Your task to perform on an android device: Open CNN.com Image 0: 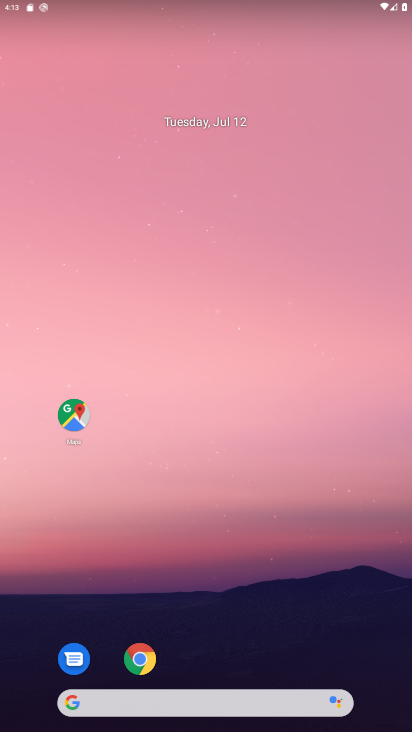
Step 0: click (113, 691)
Your task to perform on an android device: Open CNN.com Image 1: 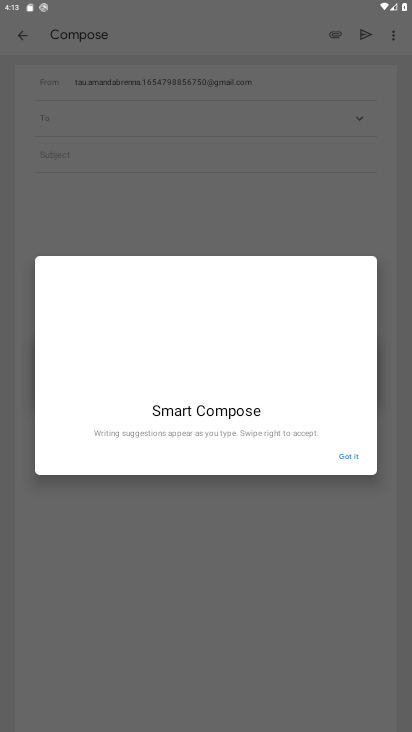
Step 1: click (346, 459)
Your task to perform on an android device: Open CNN.com Image 2: 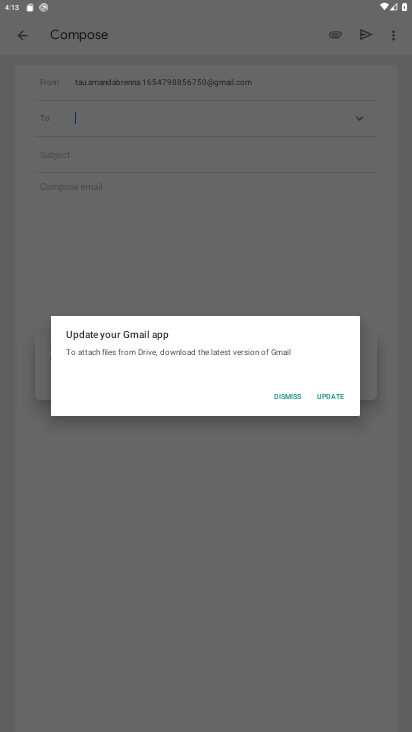
Step 2: press home button
Your task to perform on an android device: Open CNN.com Image 3: 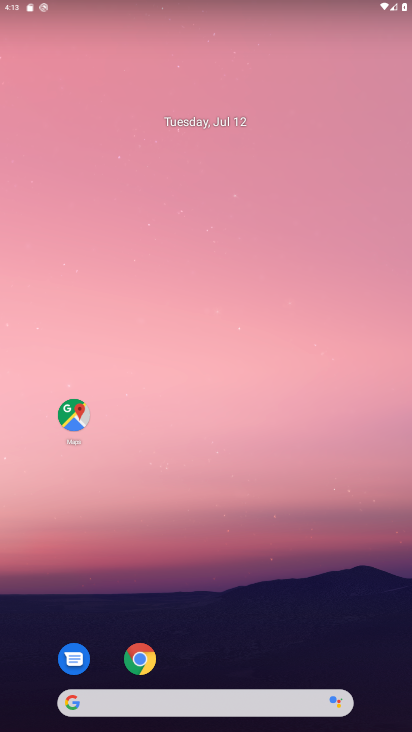
Step 3: click (137, 650)
Your task to perform on an android device: Open CNN.com Image 4: 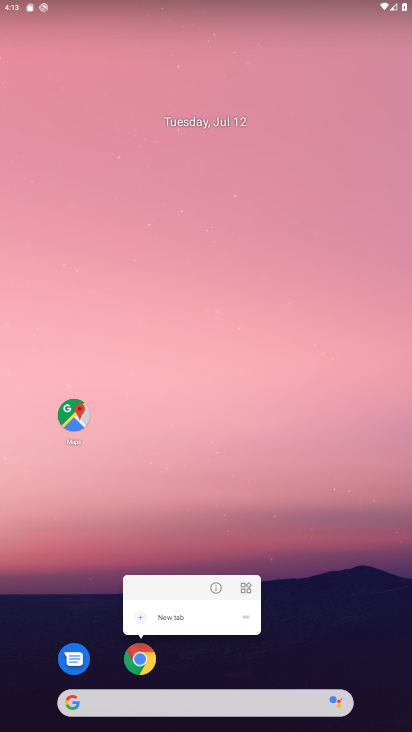
Step 4: click (137, 657)
Your task to perform on an android device: Open CNN.com Image 5: 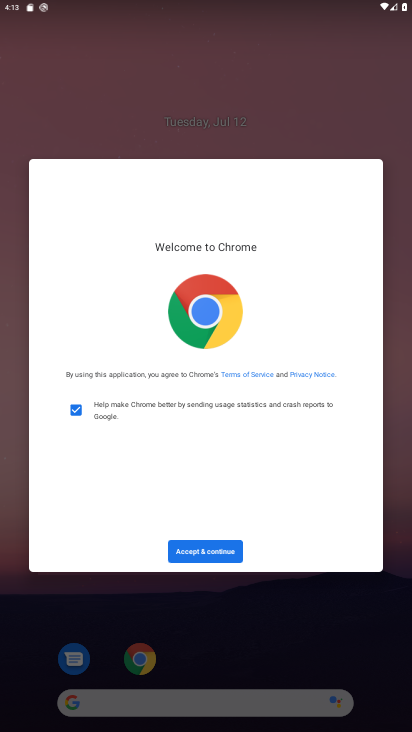
Step 5: click (201, 547)
Your task to perform on an android device: Open CNN.com Image 6: 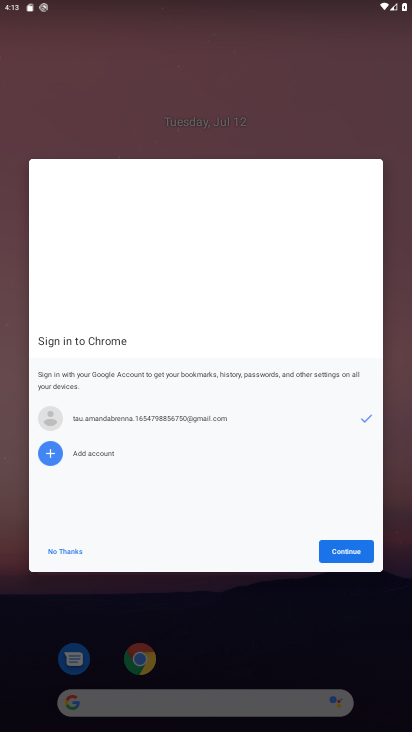
Step 6: click (368, 543)
Your task to perform on an android device: Open CNN.com Image 7: 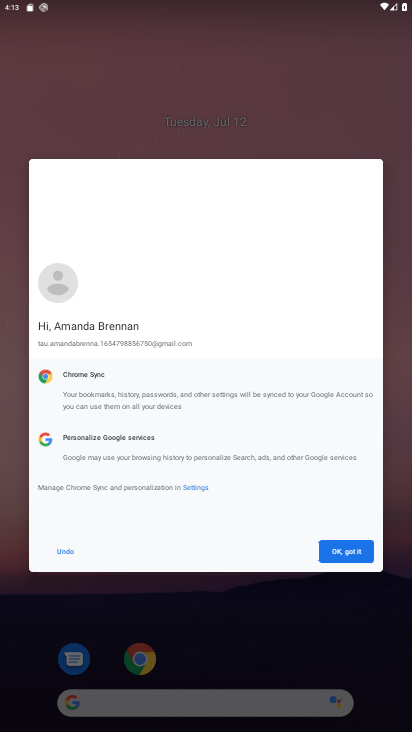
Step 7: click (350, 559)
Your task to perform on an android device: Open CNN.com Image 8: 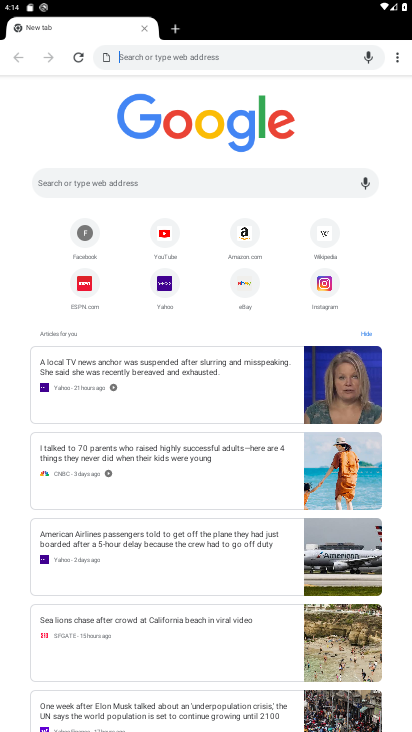
Step 8: type "CNN.com"
Your task to perform on an android device: Open CNN.com Image 9: 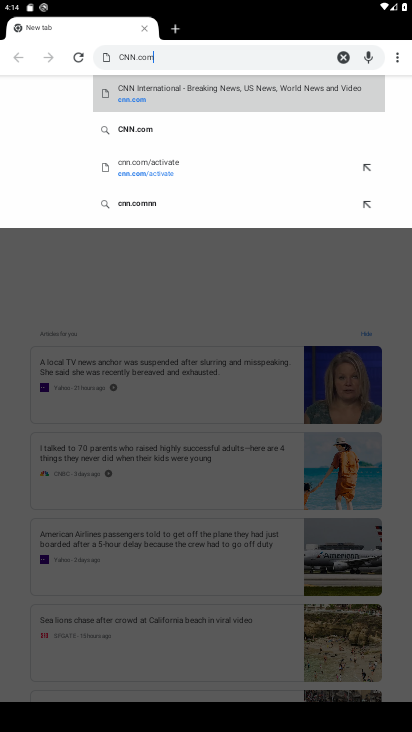
Step 9: type ""
Your task to perform on an android device: Open CNN.com Image 10: 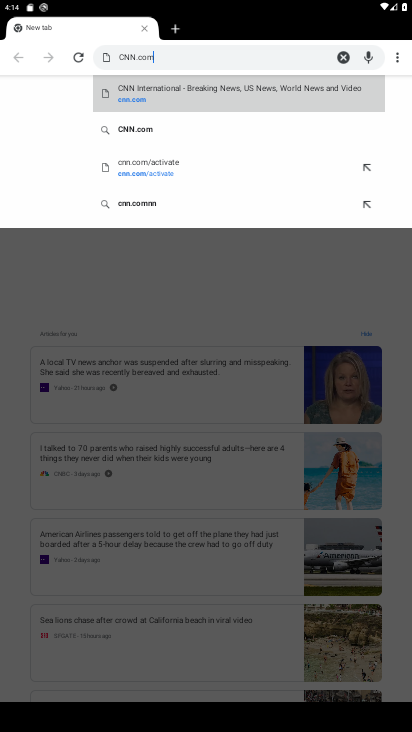
Step 10: click (114, 130)
Your task to perform on an android device: Open CNN.com Image 11: 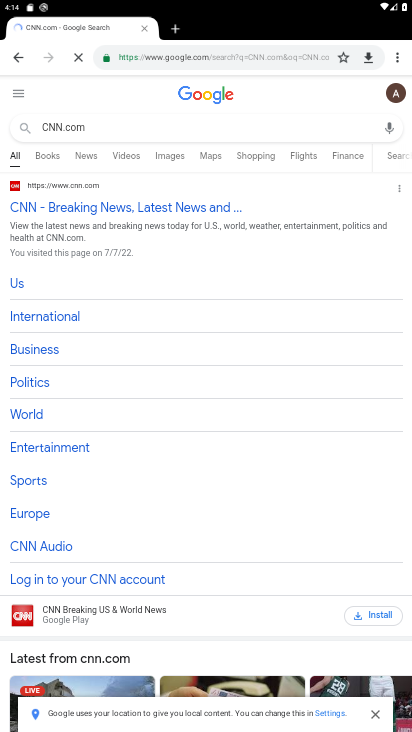
Step 11: task complete